Your task to perform on an android device: turn on improve location accuracy Image 0: 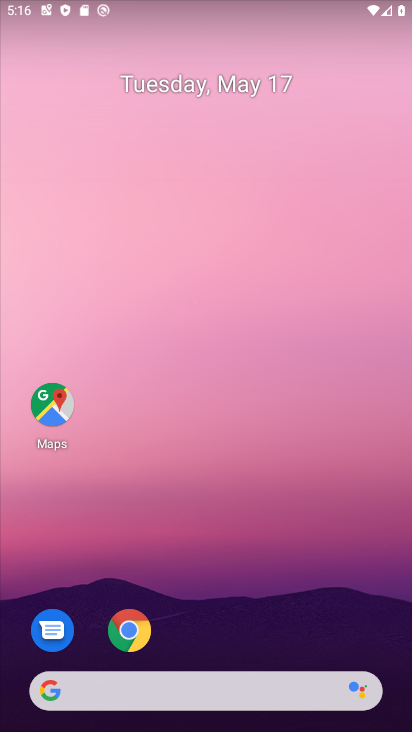
Step 0: drag from (286, 589) to (305, 100)
Your task to perform on an android device: turn on improve location accuracy Image 1: 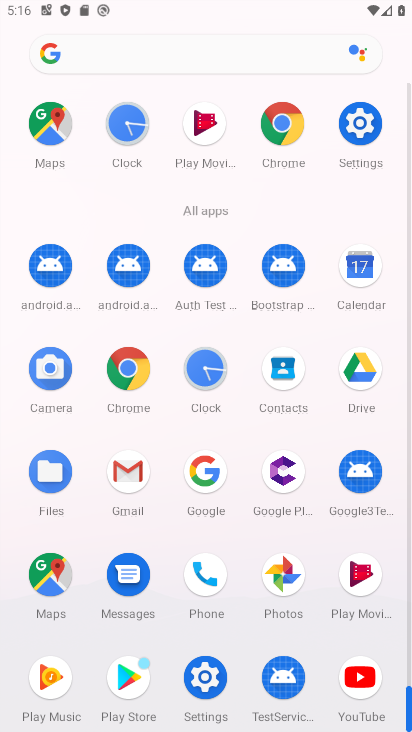
Step 1: click (361, 132)
Your task to perform on an android device: turn on improve location accuracy Image 2: 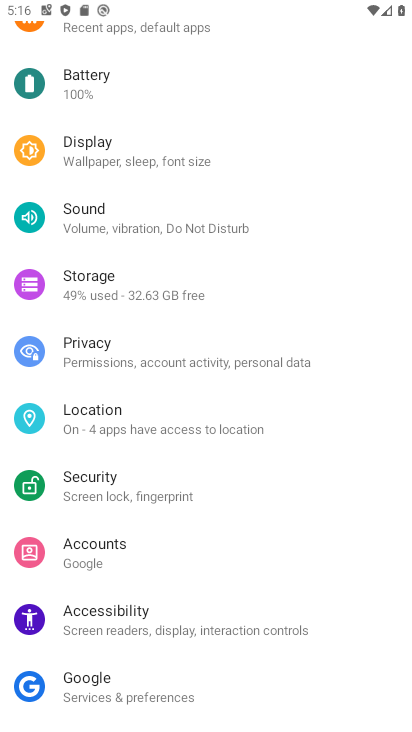
Step 2: click (149, 424)
Your task to perform on an android device: turn on improve location accuracy Image 3: 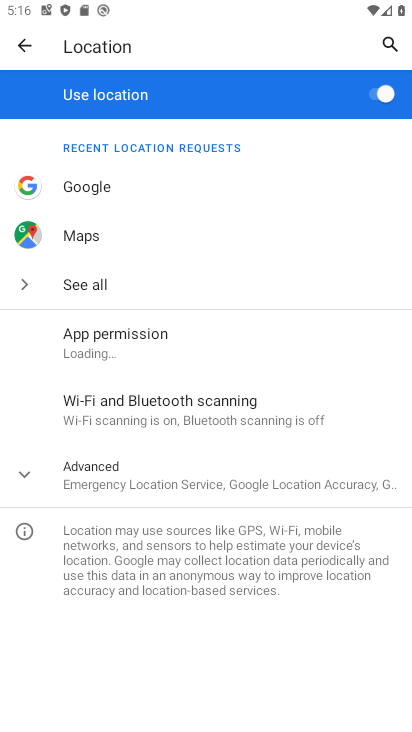
Step 3: click (190, 483)
Your task to perform on an android device: turn on improve location accuracy Image 4: 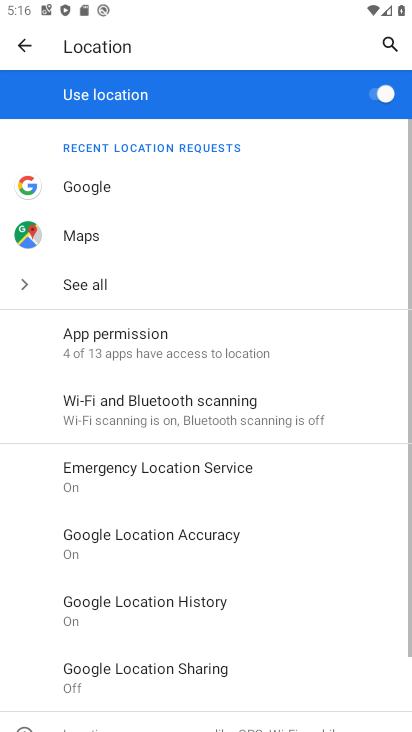
Step 4: drag from (288, 616) to (326, 426)
Your task to perform on an android device: turn on improve location accuracy Image 5: 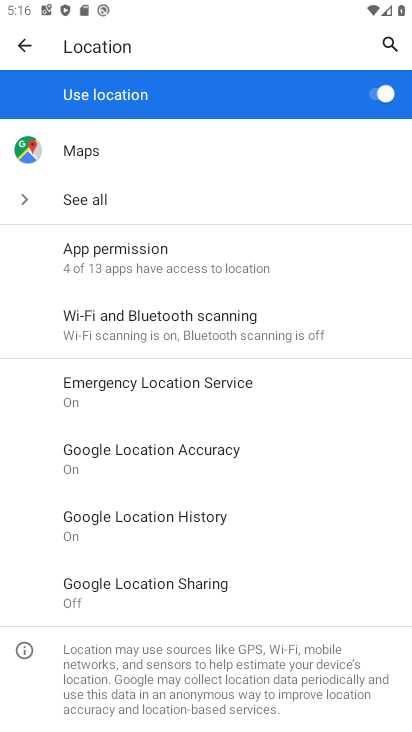
Step 5: click (193, 444)
Your task to perform on an android device: turn on improve location accuracy Image 6: 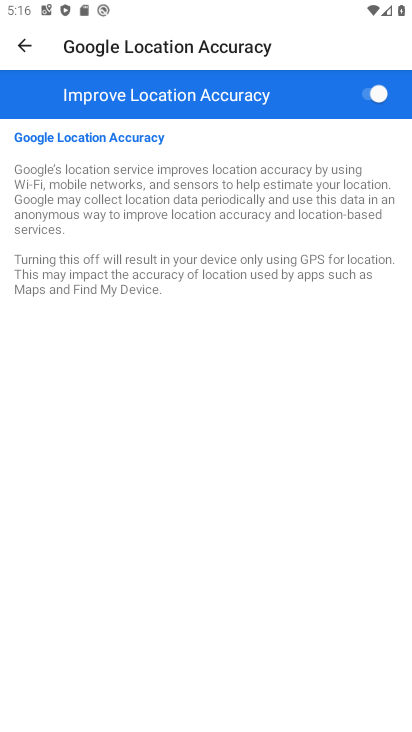
Step 6: task complete